Your task to perform on an android device: move a message to another label in the gmail app Image 0: 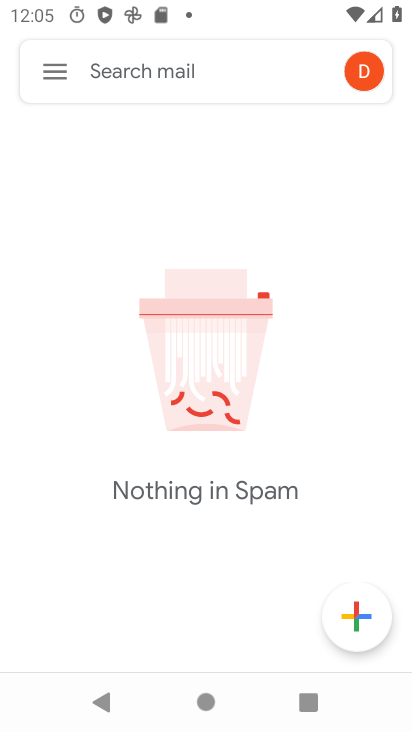
Step 0: press home button
Your task to perform on an android device: move a message to another label in the gmail app Image 1: 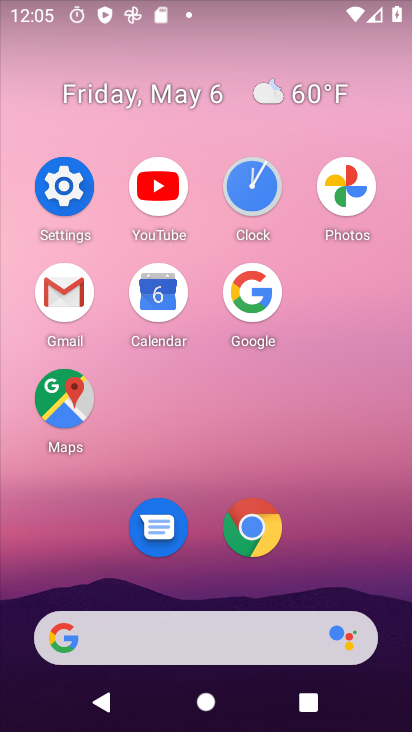
Step 1: click (79, 291)
Your task to perform on an android device: move a message to another label in the gmail app Image 2: 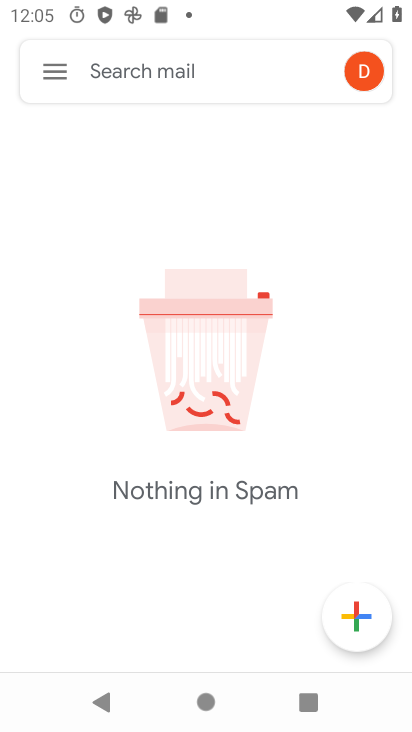
Step 2: click (42, 72)
Your task to perform on an android device: move a message to another label in the gmail app Image 3: 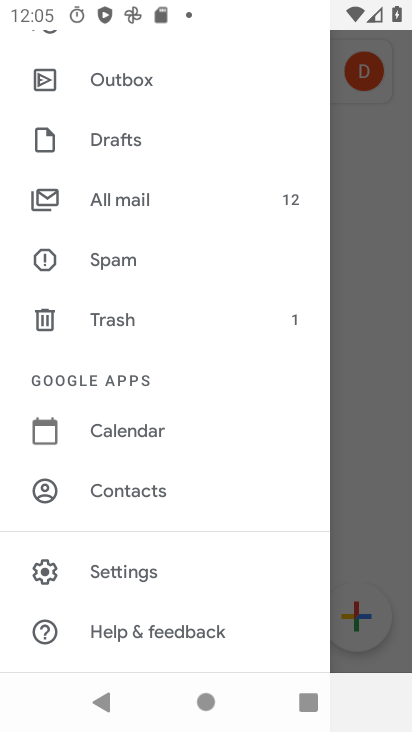
Step 3: click (131, 210)
Your task to perform on an android device: move a message to another label in the gmail app Image 4: 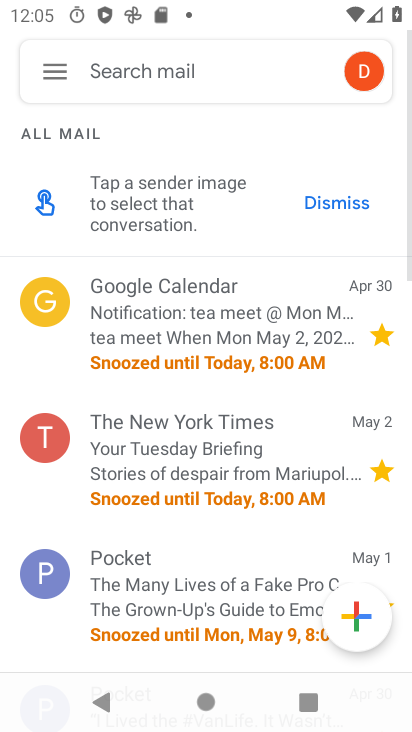
Step 4: drag from (266, 502) to (246, 133)
Your task to perform on an android device: move a message to another label in the gmail app Image 5: 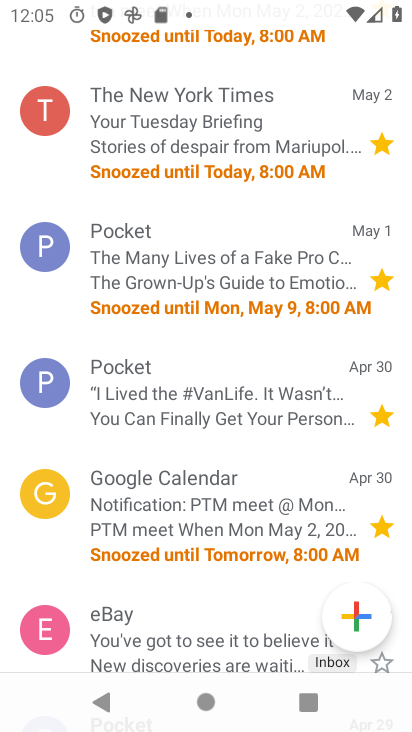
Step 5: drag from (291, 576) to (257, 168)
Your task to perform on an android device: move a message to another label in the gmail app Image 6: 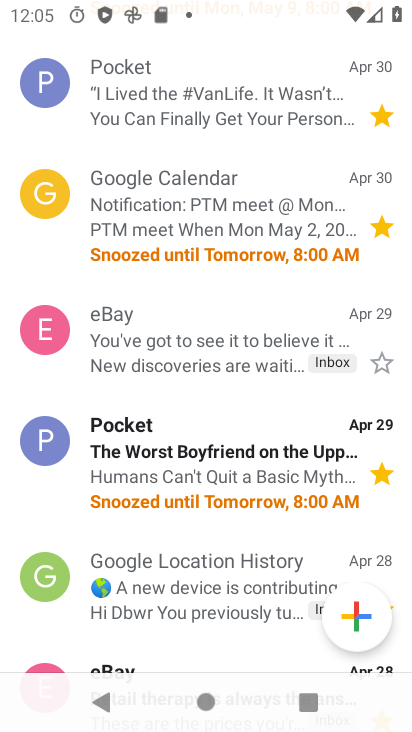
Step 6: click (380, 362)
Your task to perform on an android device: move a message to another label in the gmail app Image 7: 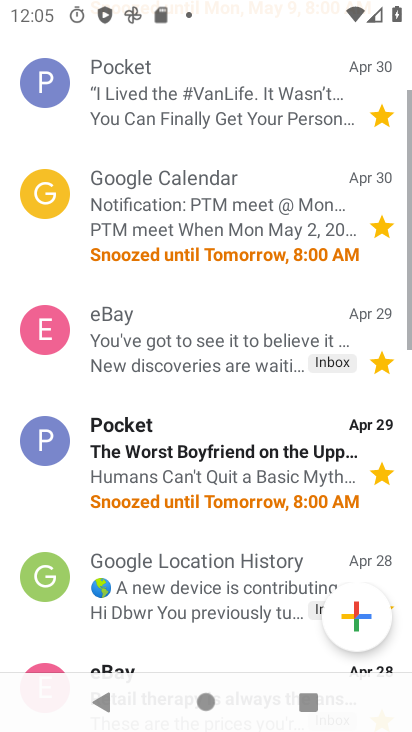
Step 7: task complete